Your task to perform on an android device: Toggle the flashlight Image 0: 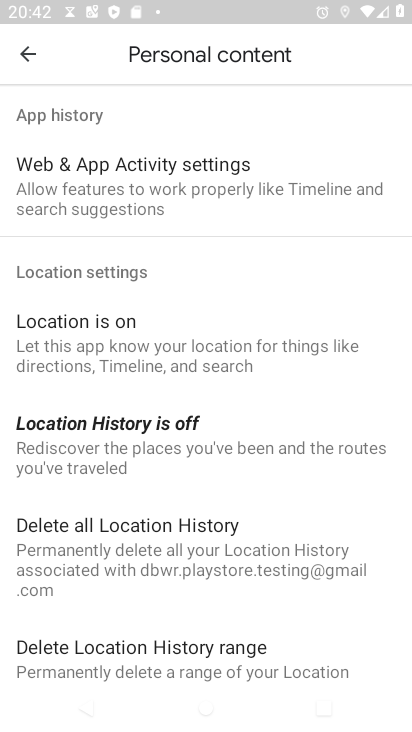
Step 0: press home button
Your task to perform on an android device: Toggle the flashlight Image 1: 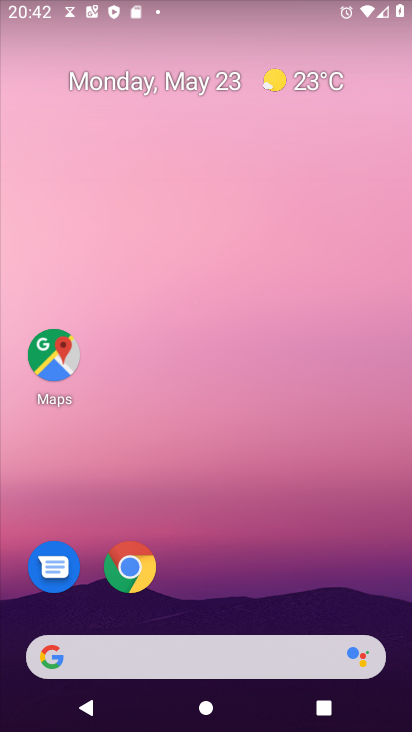
Step 1: drag from (197, 599) to (274, 252)
Your task to perform on an android device: Toggle the flashlight Image 2: 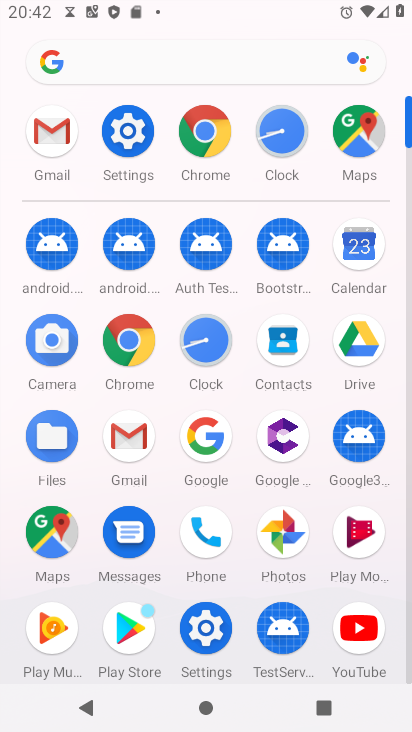
Step 2: click (120, 122)
Your task to perform on an android device: Toggle the flashlight Image 3: 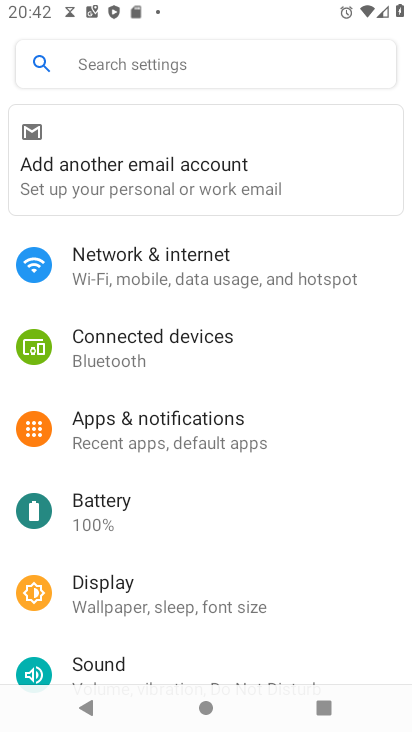
Step 3: task complete